Your task to perform on an android device: set the timer Image 0: 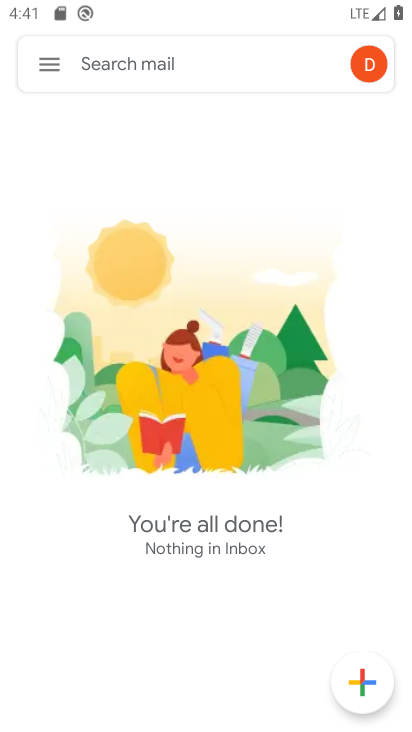
Step 0: press home button
Your task to perform on an android device: set the timer Image 1: 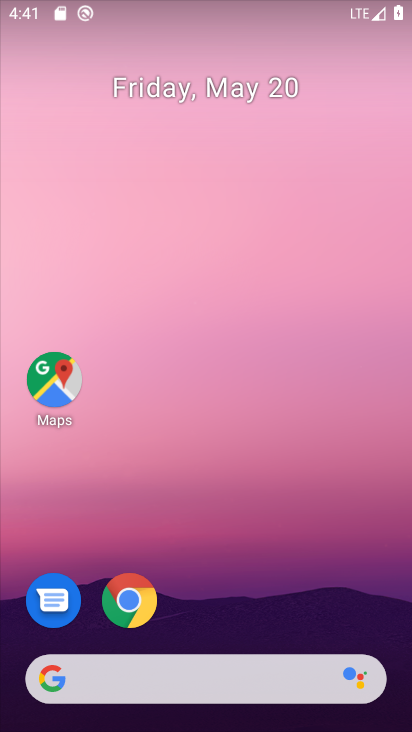
Step 1: drag from (316, 552) to (180, 87)
Your task to perform on an android device: set the timer Image 2: 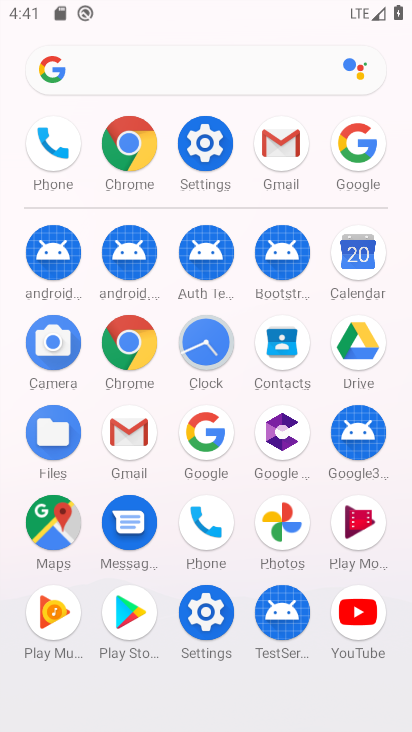
Step 2: click (214, 345)
Your task to perform on an android device: set the timer Image 3: 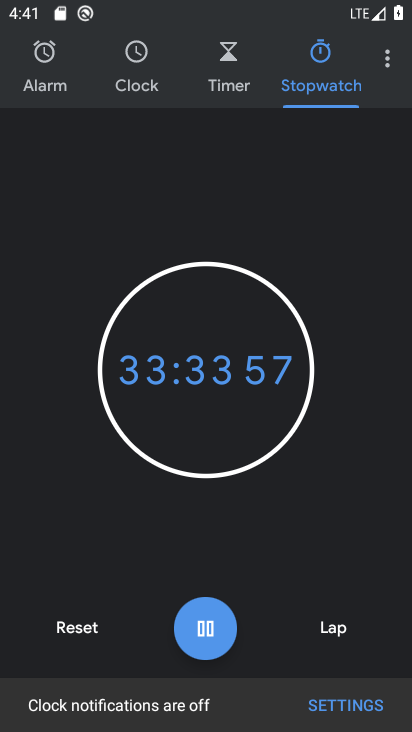
Step 3: click (377, 64)
Your task to perform on an android device: set the timer Image 4: 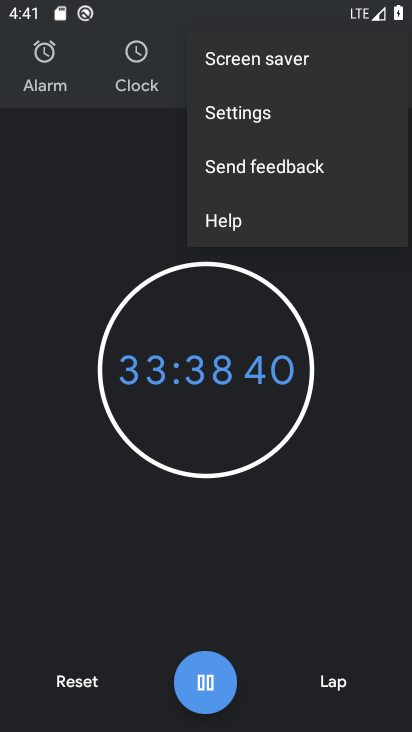
Step 4: click (278, 112)
Your task to perform on an android device: set the timer Image 5: 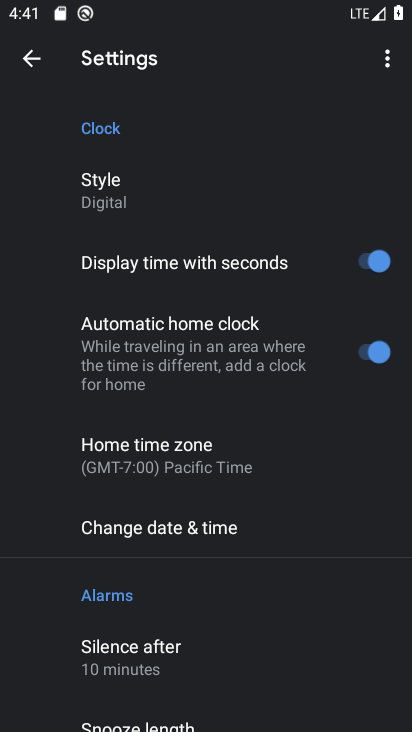
Step 5: press back button
Your task to perform on an android device: set the timer Image 6: 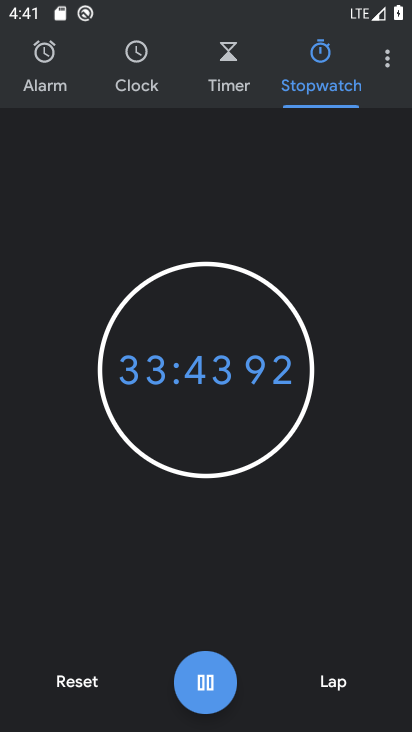
Step 6: click (243, 77)
Your task to perform on an android device: set the timer Image 7: 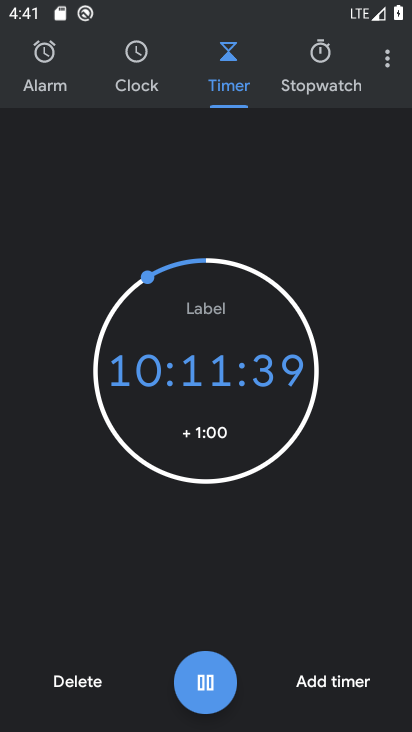
Step 7: click (84, 680)
Your task to perform on an android device: set the timer Image 8: 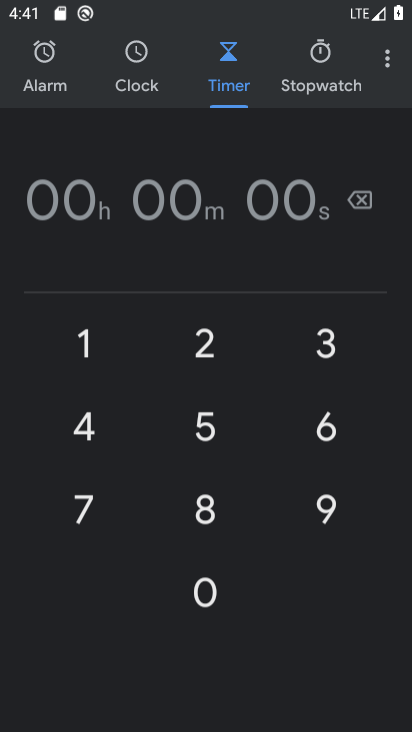
Step 8: click (211, 686)
Your task to perform on an android device: set the timer Image 9: 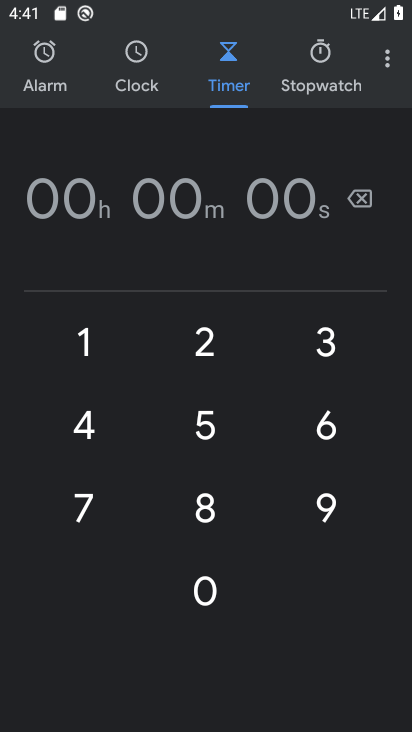
Step 9: click (105, 337)
Your task to perform on an android device: set the timer Image 10: 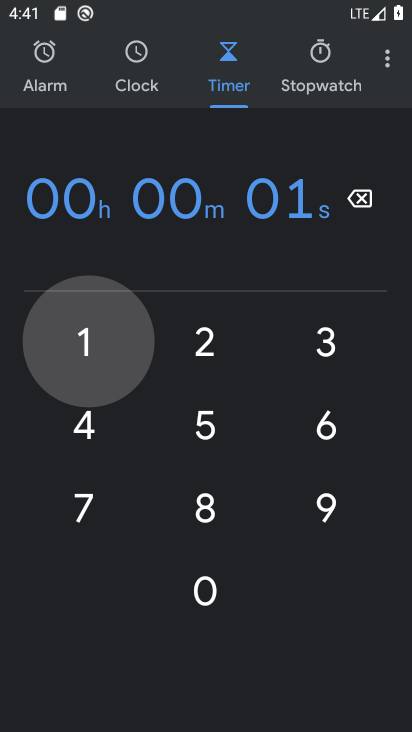
Step 10: click (105, 337)
Your task to perform on an android device: set the timer Image 11: 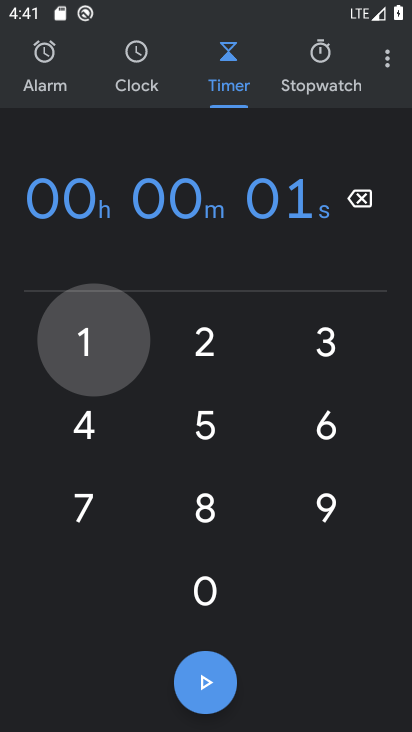
Step 11: click (105, 337)
Your task to perform on an android device: set the timer Image 12: 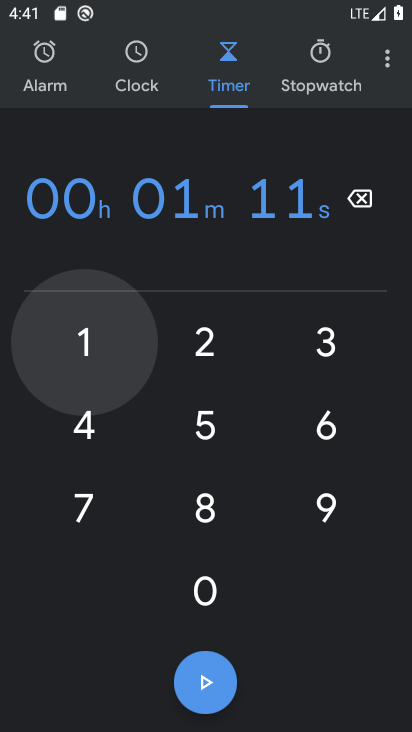
Step 12: click (103, 338)
Your task to perform on an android device: set the timer Image 13: 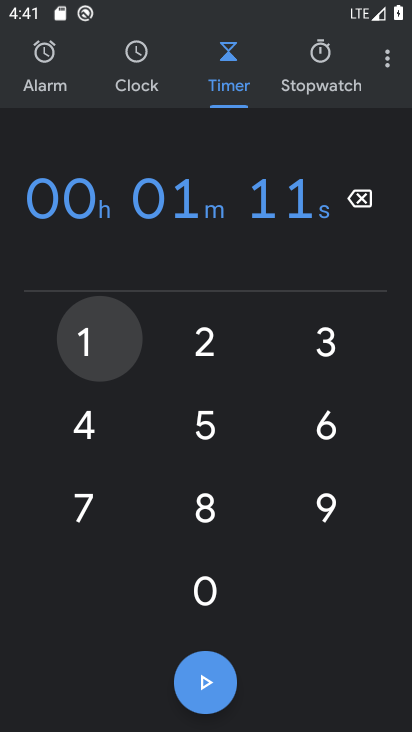
Step 13: click (103, 338)
Your task to perform on an android device: set the timer Image 14: 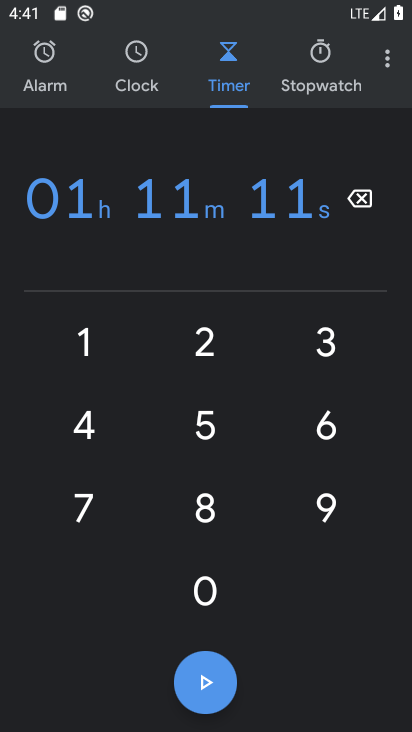
Step 14: click (103, 338)
Your task to perform on an android device: set the timer Image 15: 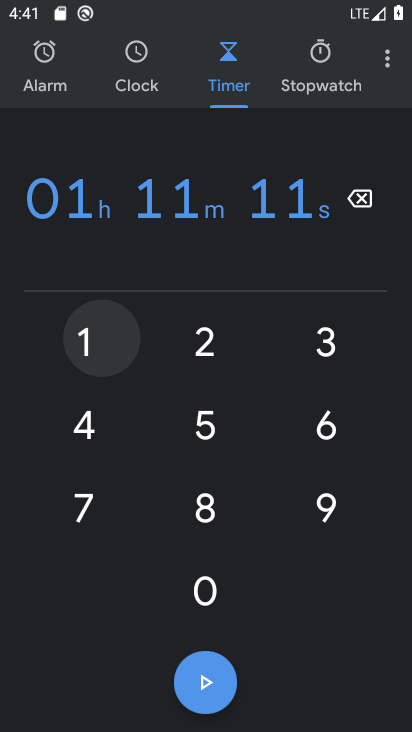
Step 15: click (103, 338)
Your task to perform on an android device: set the timer Image 16: 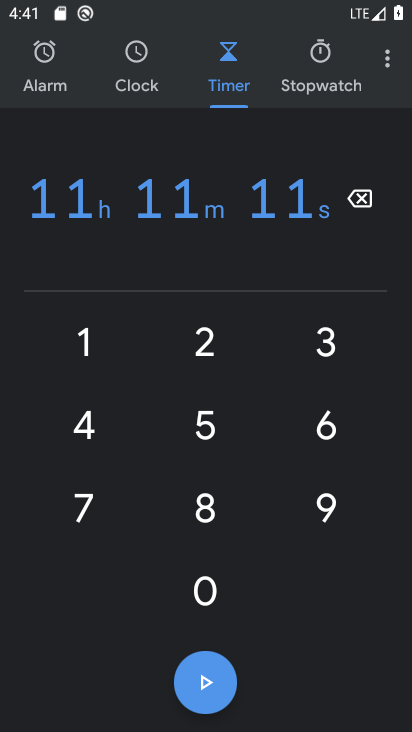
Step 16: click (207, 681)
Your task to perform on an android device: set the timer Image 17: 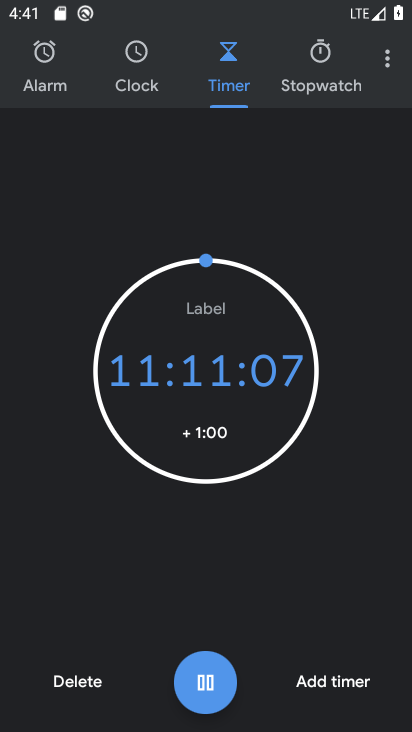
Step 17: task complete